Your task to perform on an android device: snooze an email in the gmail app Image 0: 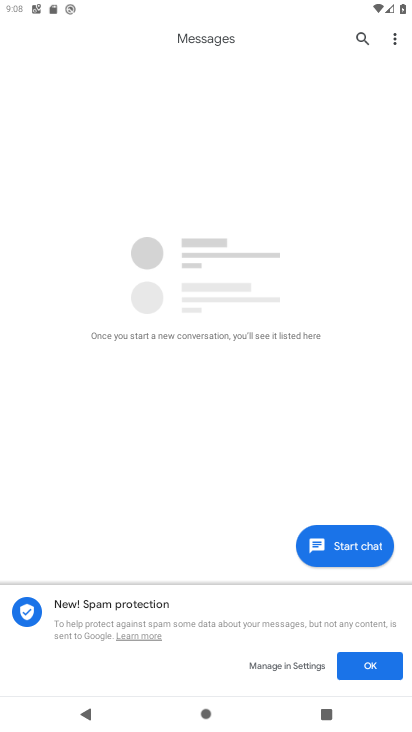
Step 0: press home button
Your task to perform on an android device: snooze an email in the gmail app Image 1: 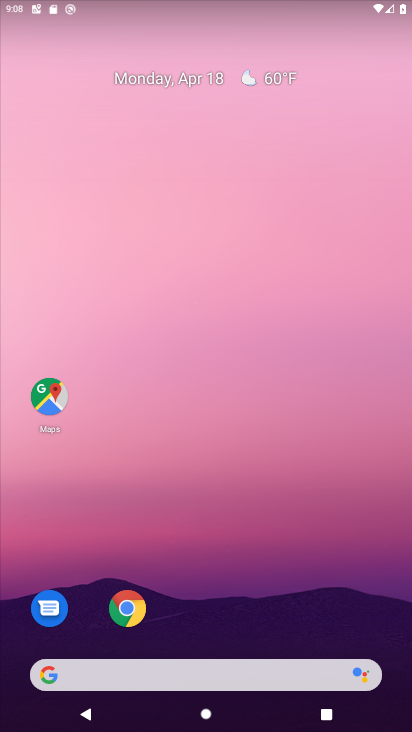
Step 1: drag from (341, 610) to (286, 203)
Your task to perform on an android device: snooze an email in the gmail app Image 2: 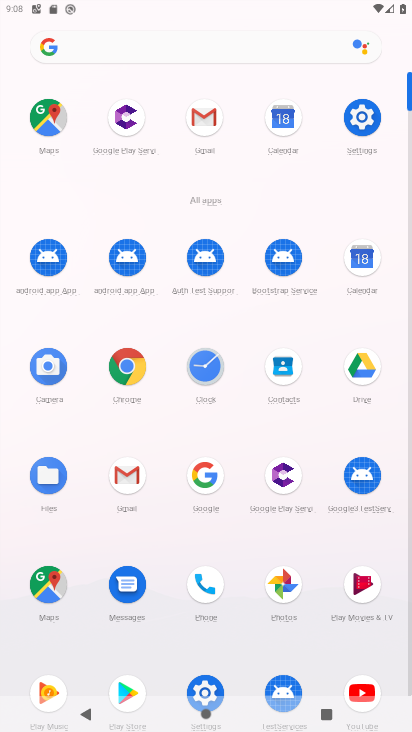
Step 2: click (202, 121)
Your task to perform on an android device: snooze an email in the gmail app Image 3: 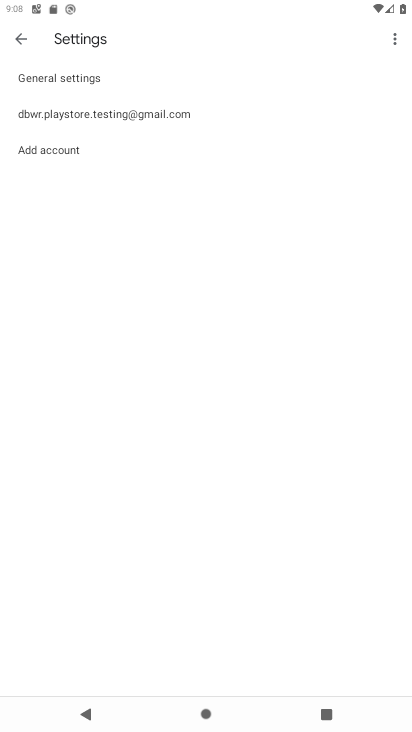
Step 3: click (22, 44)
Your task to perform on an android device: snooze an email in the gmail app Image 4: 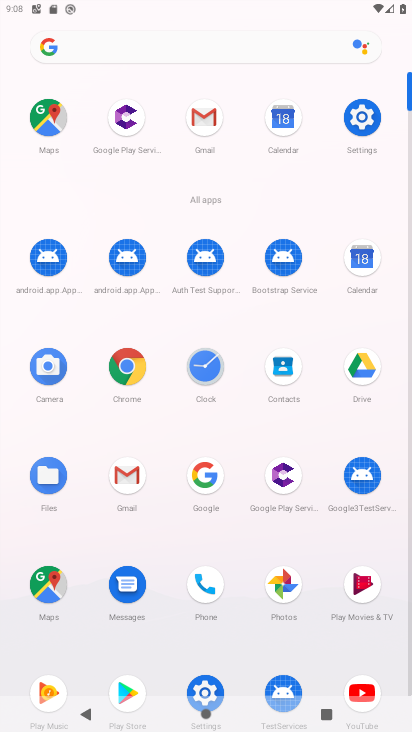
Step 4: click (191, 132)
Your task to perform on an android device: snooze an email in the gmail app Image 5: 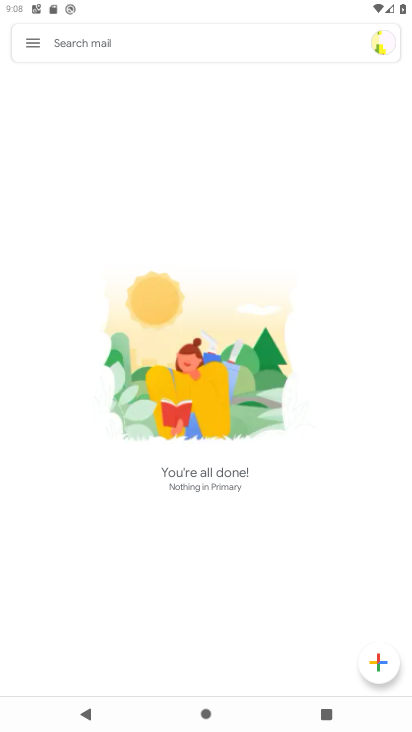
Step 5: click (27, 44)
Your task to perform on an android device: snooze an email in the gmail app Image 6: 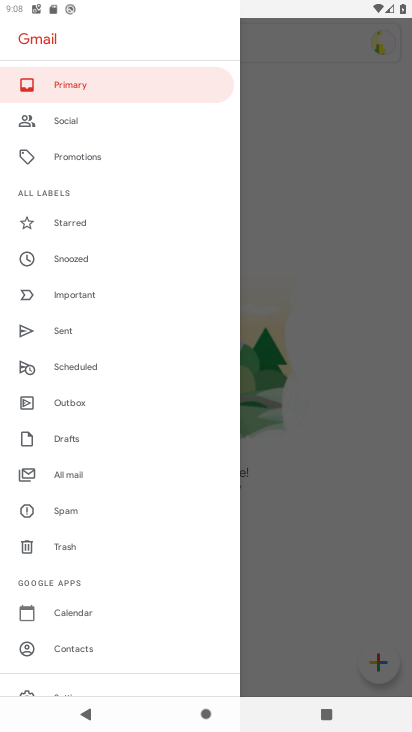
Step 6: click (84, 469)
Your task to perform on an android device: snooze an email in the gmail app Image 7: 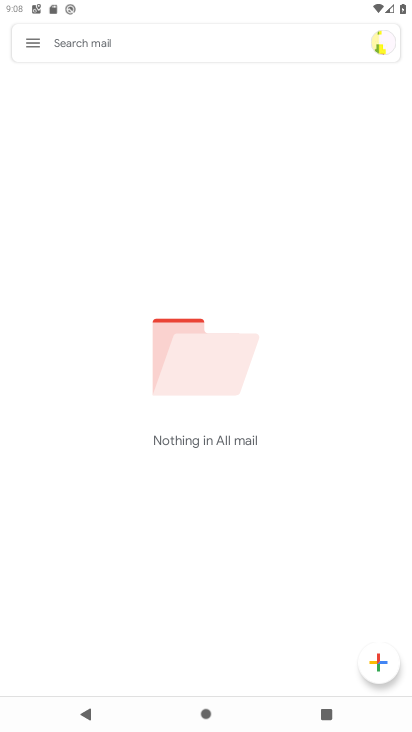
Step 7: task complete